Your task to perform on an android device: open app "Spotify" (install if not already installed) Image 0: 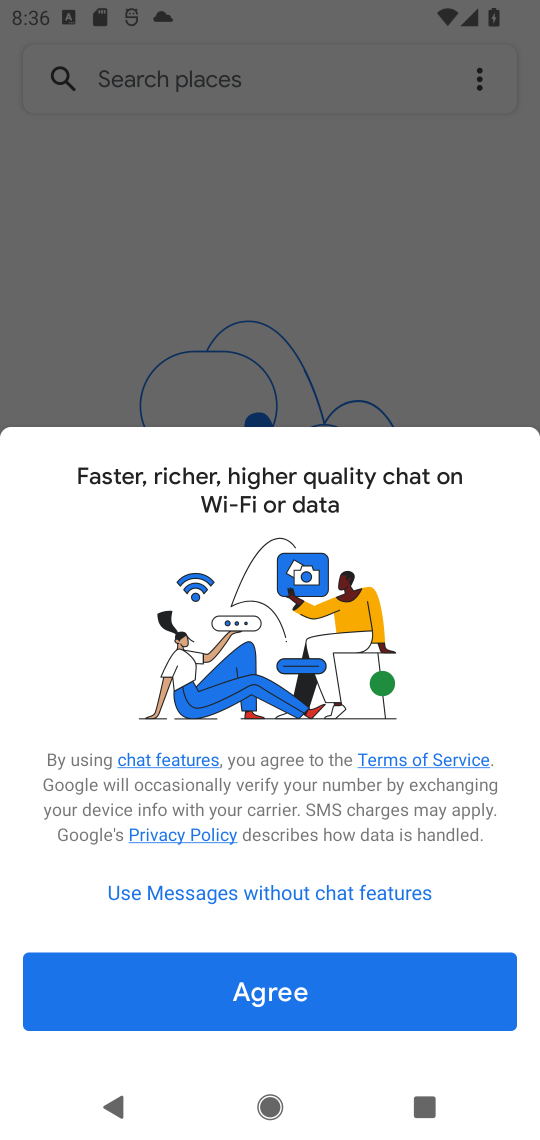
Step 0: press home button
Your task to perform on an android device: open app "Spotify" (install if not already installed) Image 1: 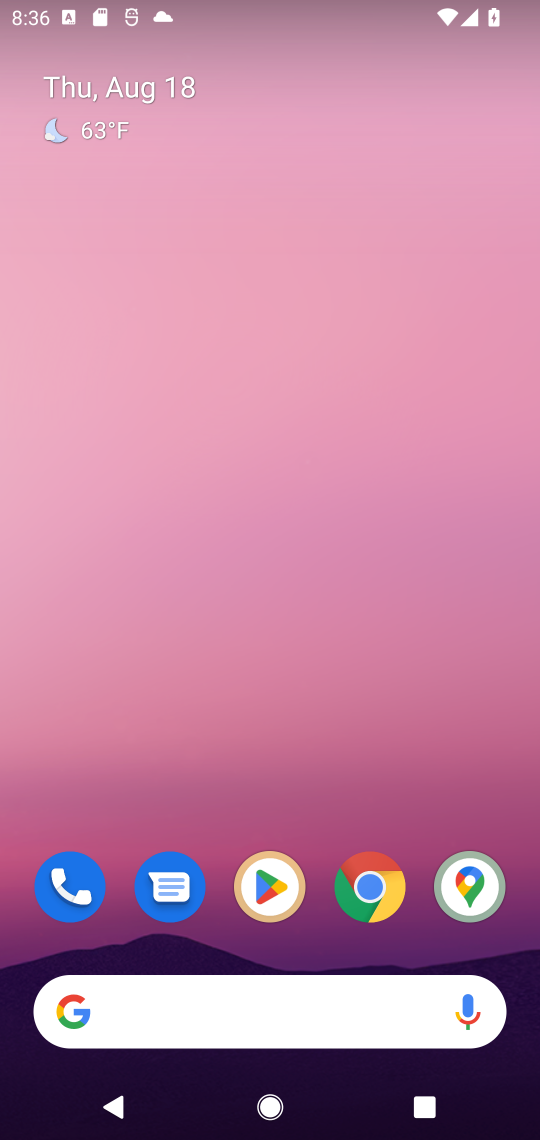
Step 1: click (263, 890)
Your task to perform on an android device: open app "Spotify" (install if not already installed) Image 2: 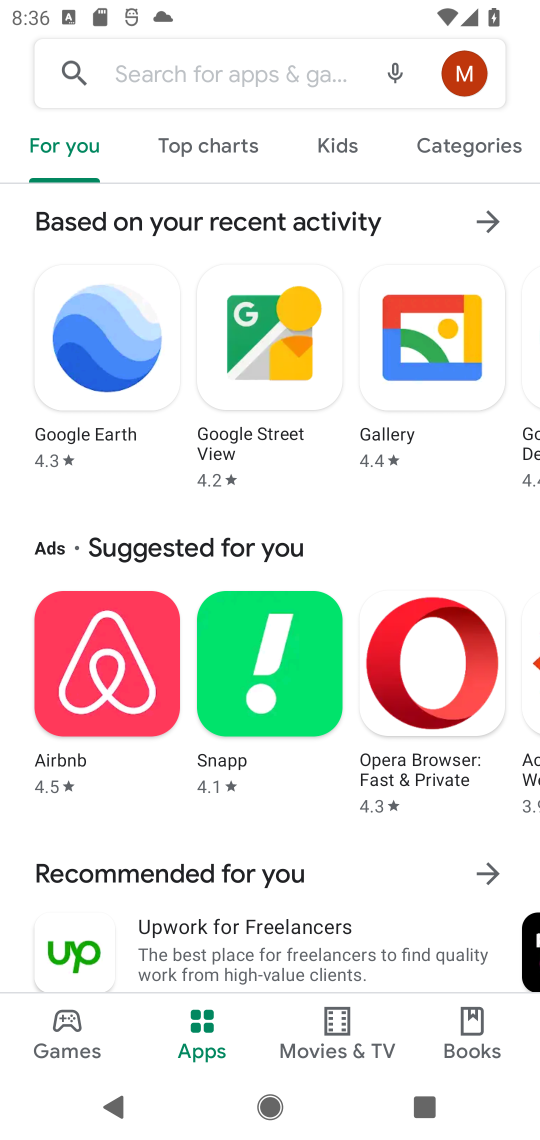
Step 2: click (70, 63)
Your task to perform on an android device: open app "Spotify" (install if not already installed) Image 3: 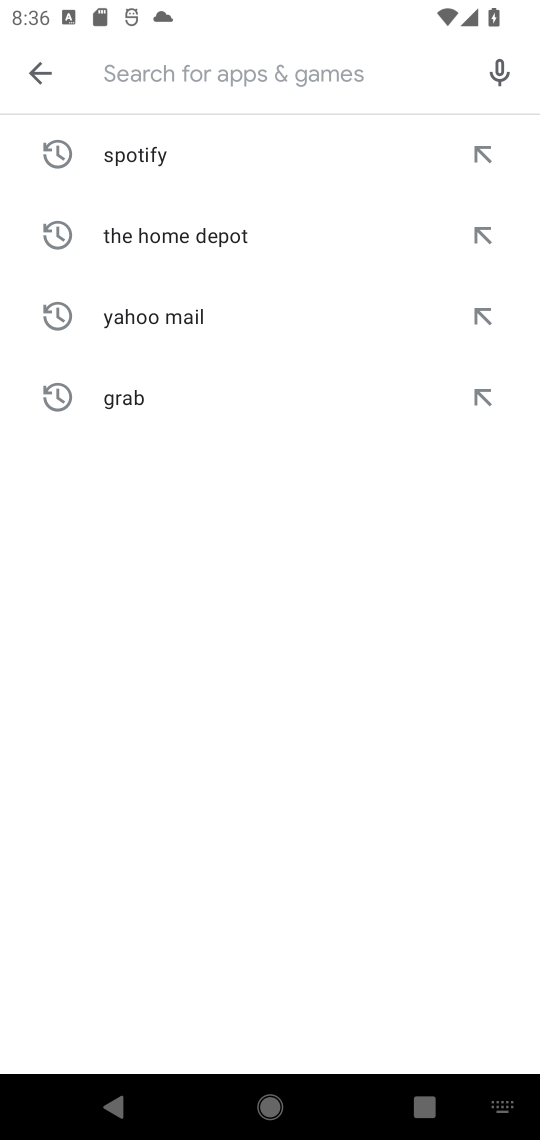
Step 3: type "Spotify"
Your task to perform on an android device: open app "Spotify" (install if not already installed) Image 4: 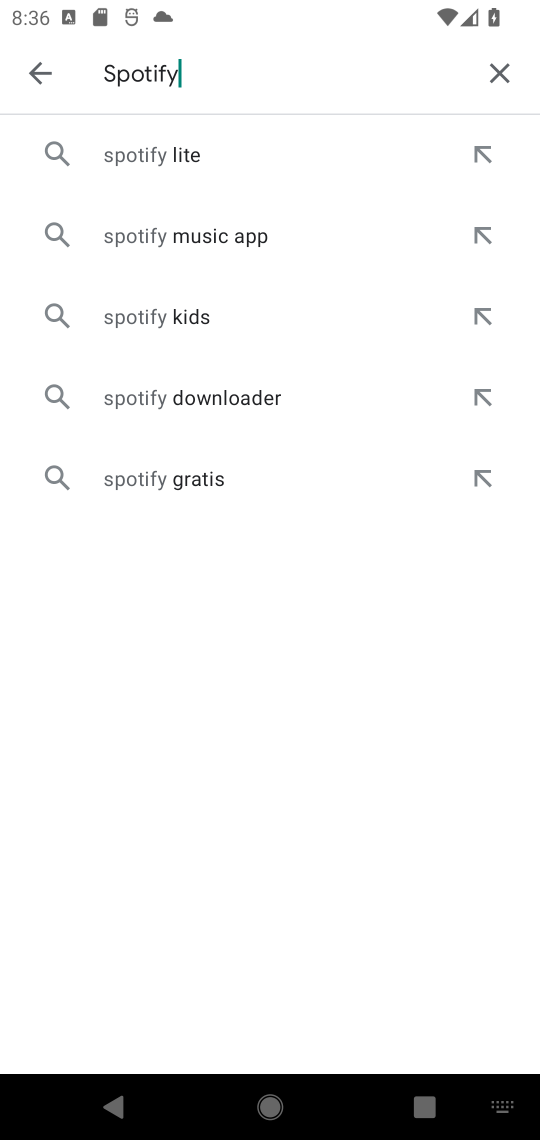
Step 4: click (150, 150)
Your task to perform on an android device: open app "Spotify" (install if not already installed) Image 5: 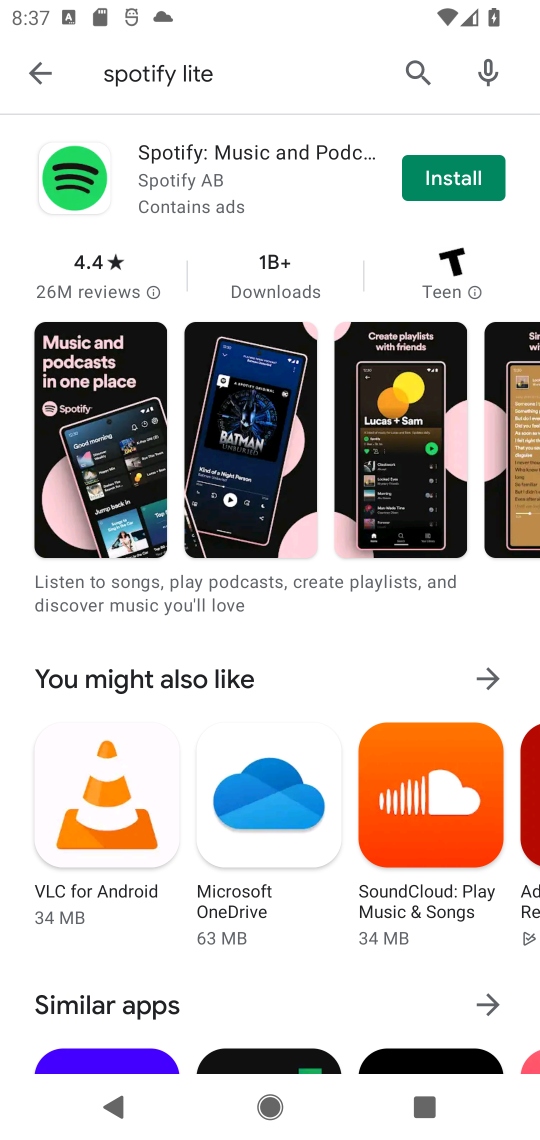
Step 5: click (439, 172)
Your task to perform on an android device: open app "Spotify" (install if not already installed) Image 6: 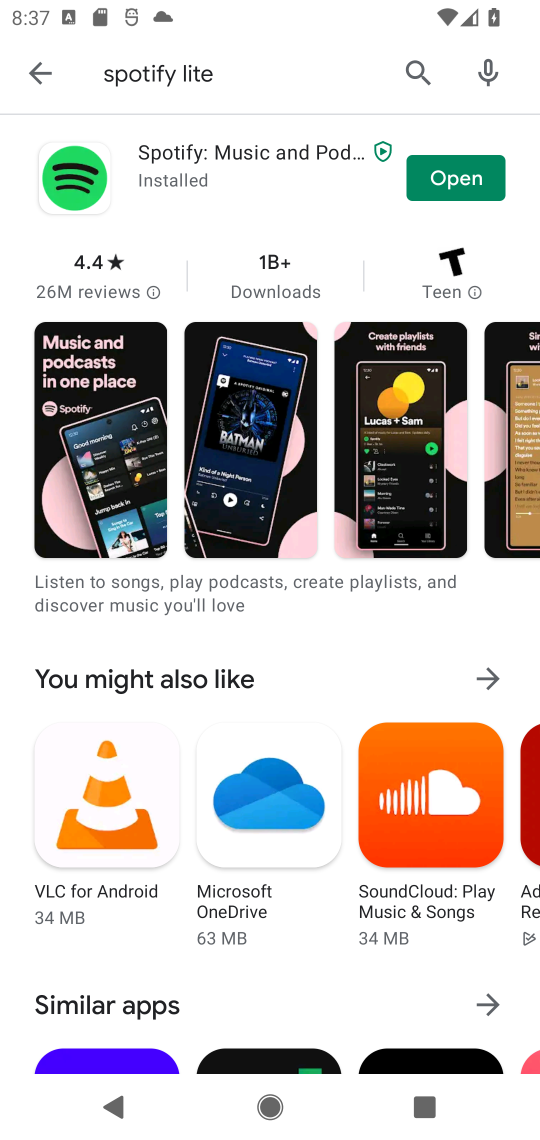
Step 6: click (466, 178)
Your task to perform on an android device: open app "Spotify" (install if not already installed) Image 7: 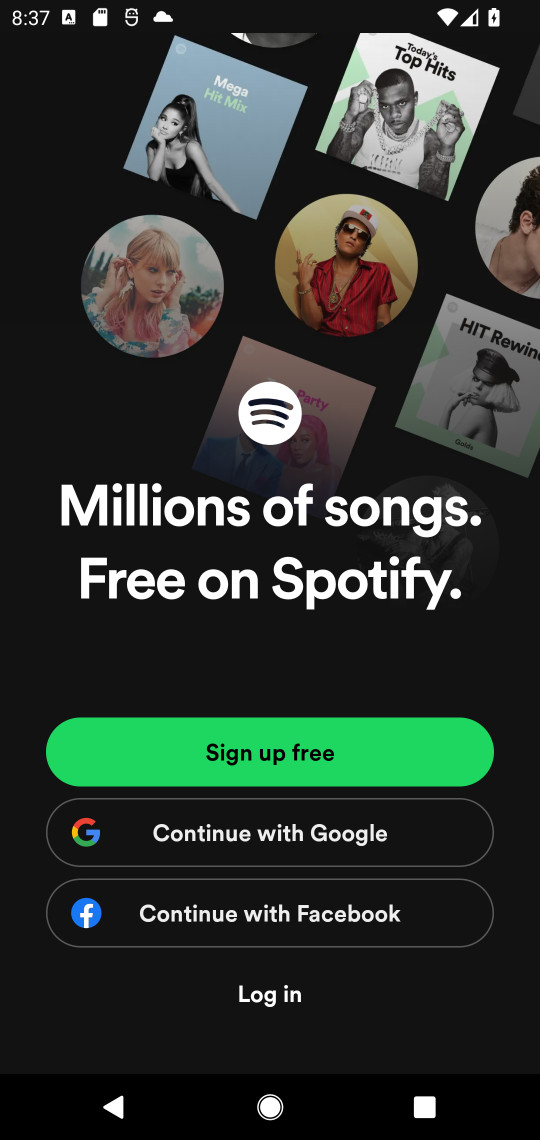
Step 7: task complete